Your task to perform on an android device: When is my next meeting? Image 0: 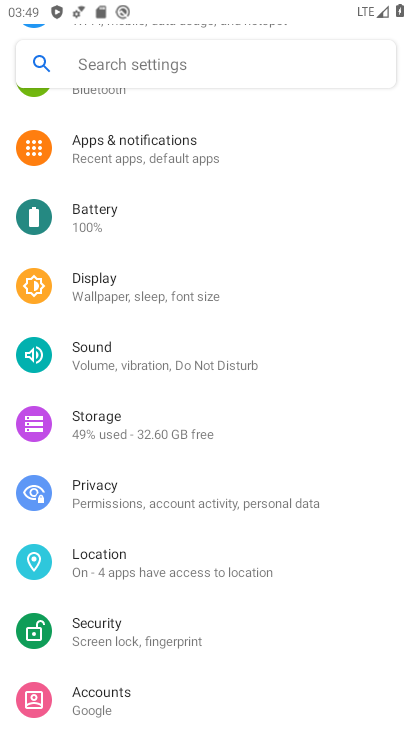
Step 0: press home button
Your task to perform on an android device: When is my next meeting? Image 1: 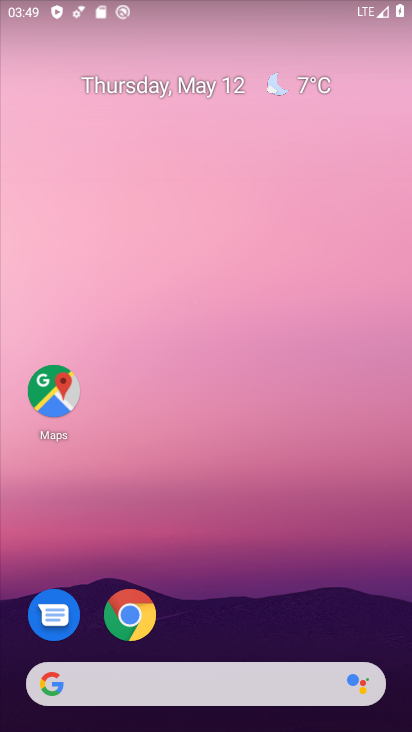
Step 1: drag from (204, 602) to (190, 146)
Your task to perform on an android device: When is my next meeting? Image 2: 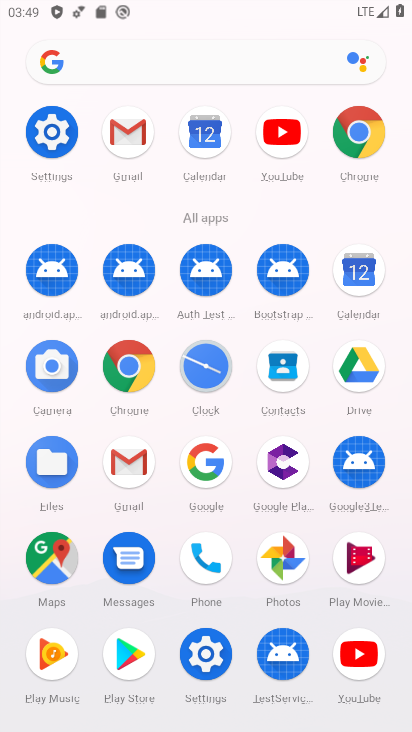
Step 2: click (369, 281)
Your task to perform on an android device: When is my next meeting? Image 3: 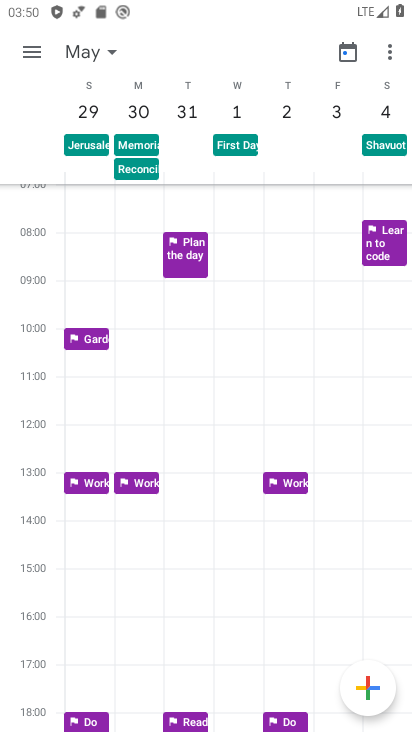
Step 3: click (127, 43)
Your task to perform on an android device: When is my next meeting? Image 4: 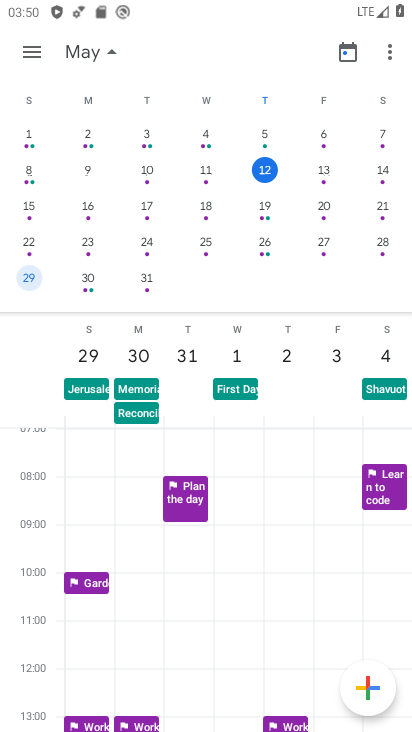
Step 4: click (261, 175)
Your task to perform on an android device: When is my next meeting? Image 5: 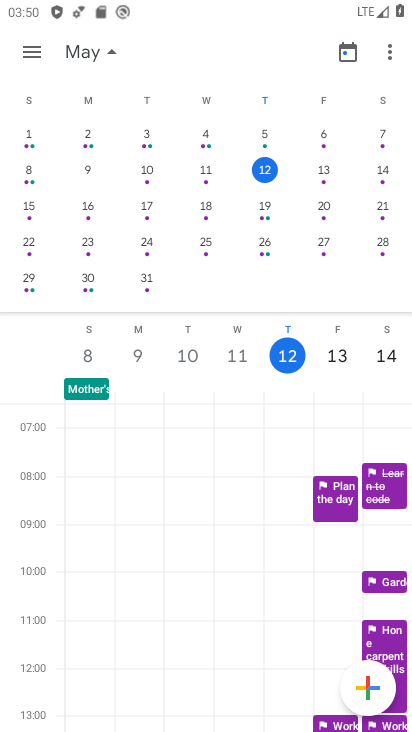
Step 5: drag from (261, 175) to (263, 32)
Your task to perform on an android device: When is my next meeting? Image 6: 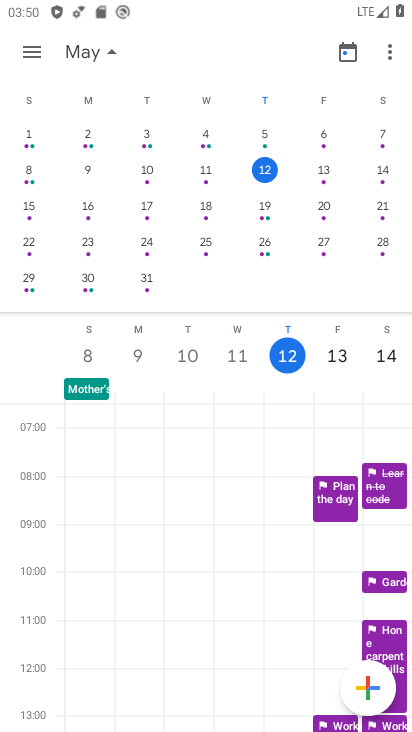
Step 6: click (28, 46)
Your task to perform on an android device: When is my next meeting? Image 7: 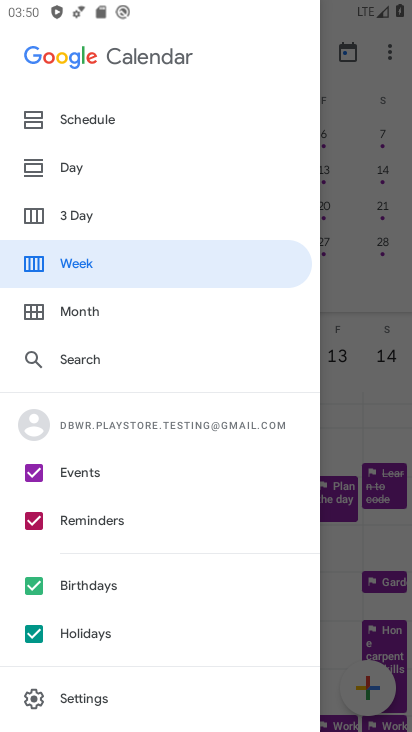
Step 7: click (93, 177)
Your task to perform on an android device: When is my next meeting? Image 8: 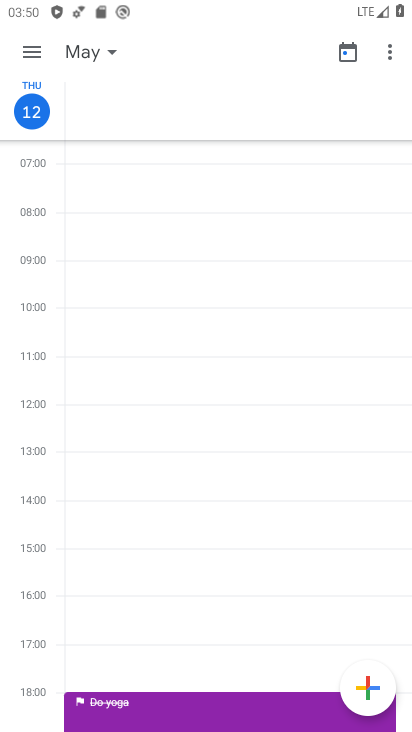
Step 8: task complete